Your task to perform on an android device: turn on the 12-hour format for clock Image 0: 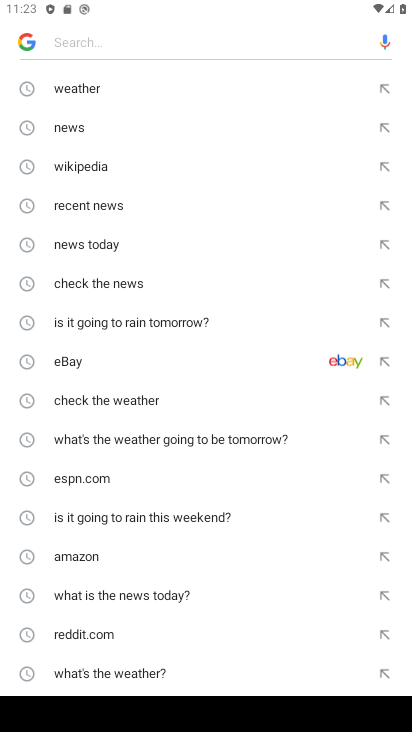
Step 0: press home button
Your task to perform on an android device: turn on the 12-hour format for clock Image 1: 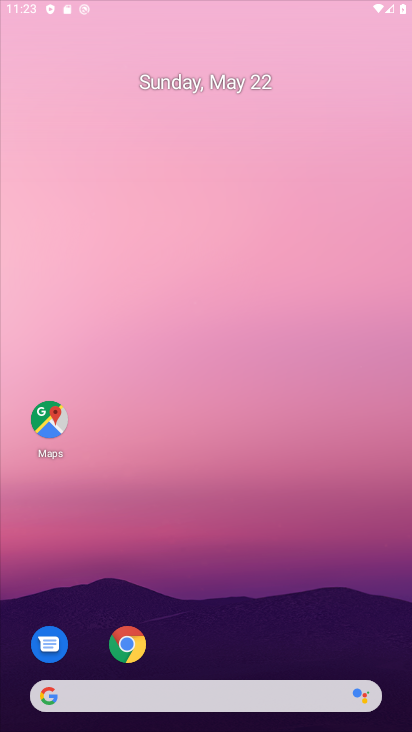
Step 1: drag from (388, 634) to (279, 83)
Your task to perform on an android device: turn on the 12-hour format for clock Image 2: 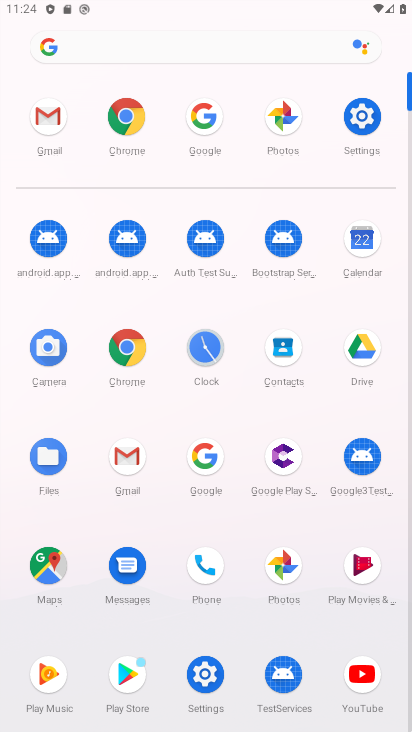
Step 2: click (217, 356)
Your task to perform on an android device: turn on the 12-hour format for clock Image 3: 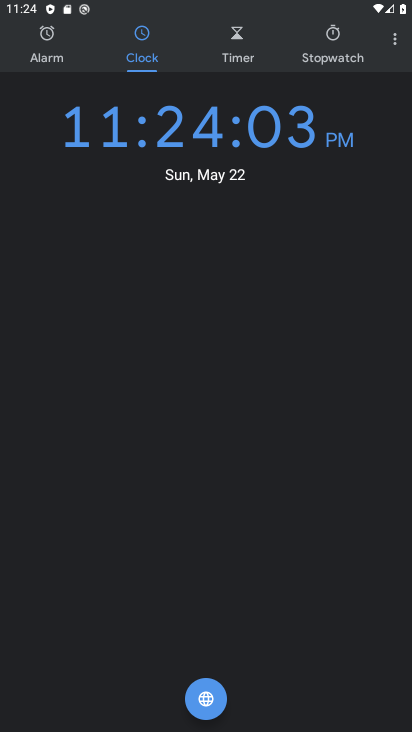
Step 3: click (389, 46)
Your task to perform on an android device: turn on the 12-hour format for clock Image 4: 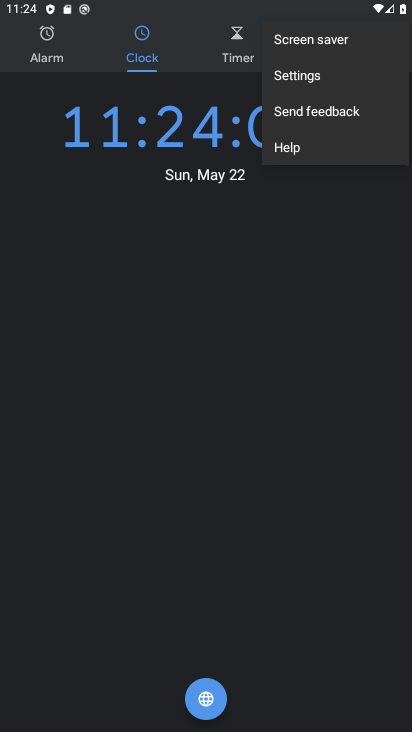
Step 4: click (339, 78)
Your task to perform on an android device: turn on the 12-hour format for clock Image 5: 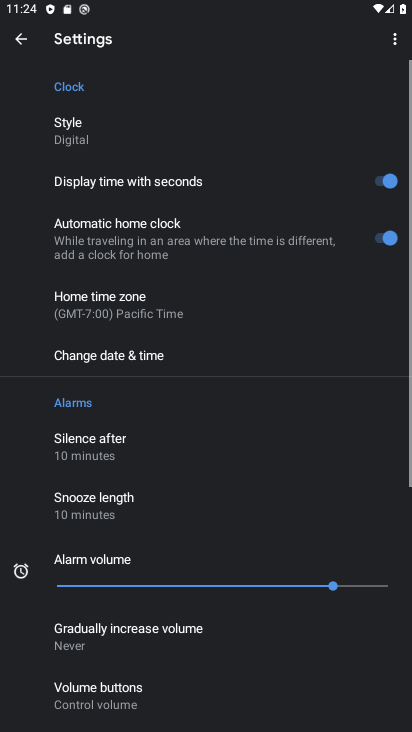
Step 5: click (151, 356)
Your task to perform on an android device: turn on the 12-hour format for clock Image 6: 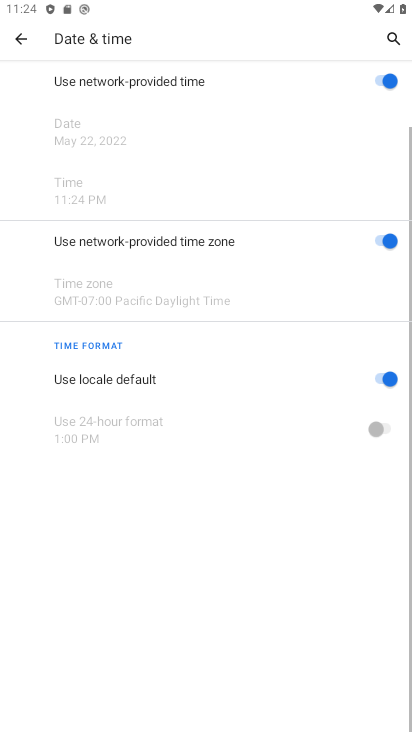
Step 6: task complete